Your task to perform on an android device: Show me popular videos on Youtube Image 0: 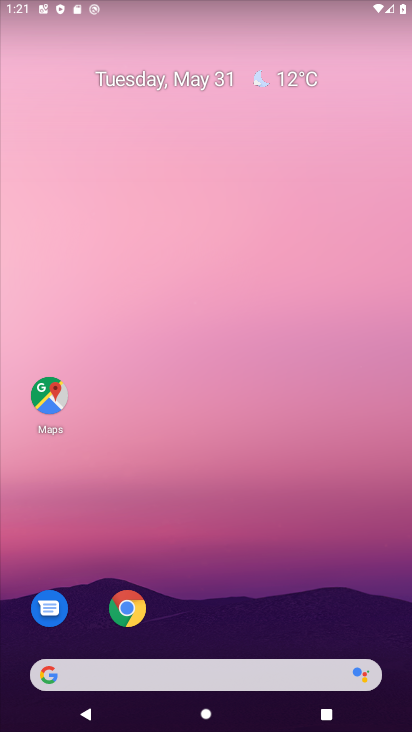
Step 0: drag from (317, 599) to (317, 237)
Your task to perform on an android device: Show me popular videos on Youtube Image 1: 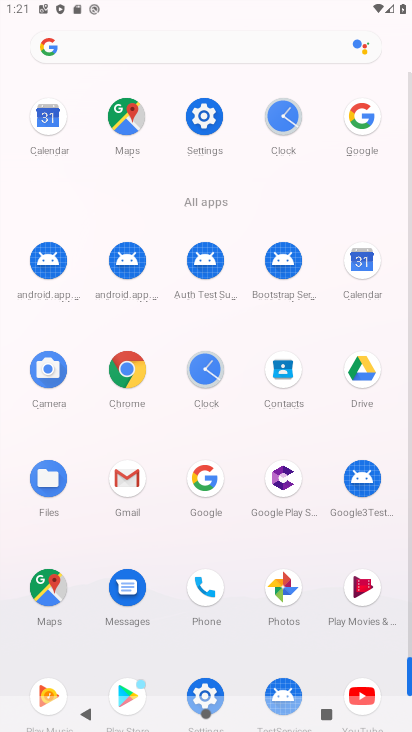
Step 1: click (358, 689)
Your task to perform on an android device: Show me popular videos on Youtube Image 2: 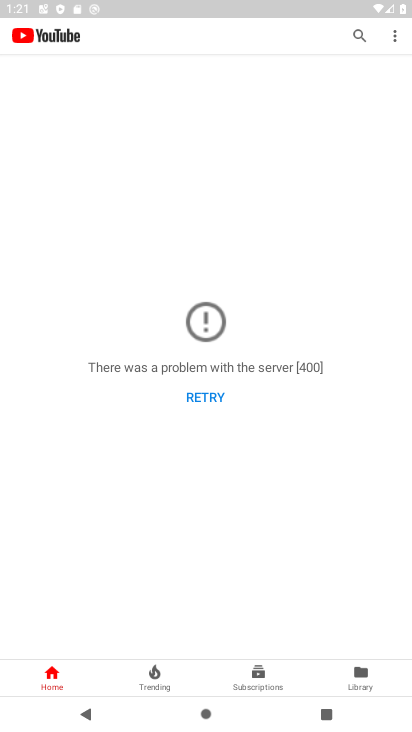
Step 2: task complete